Your task to perform on an android device: Open my contact list Image 0: 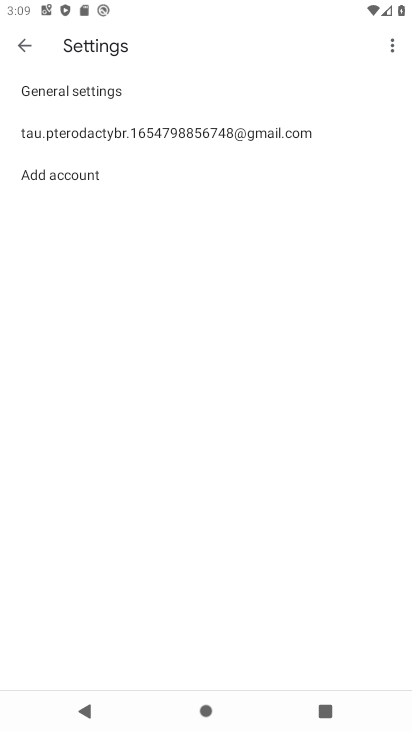
Step 0: press home button
Your task to perform on an android device: Open my contact list Image 1: 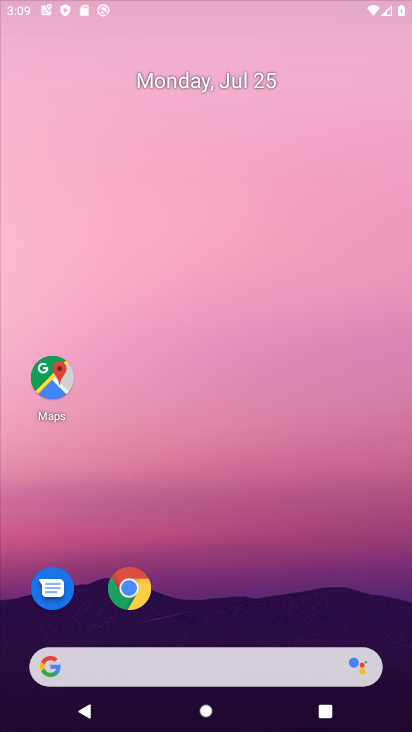
Step 1: drag from (342, 585) to (274, 51)
Your task to perform on an android device: Open my contact list Image 2: 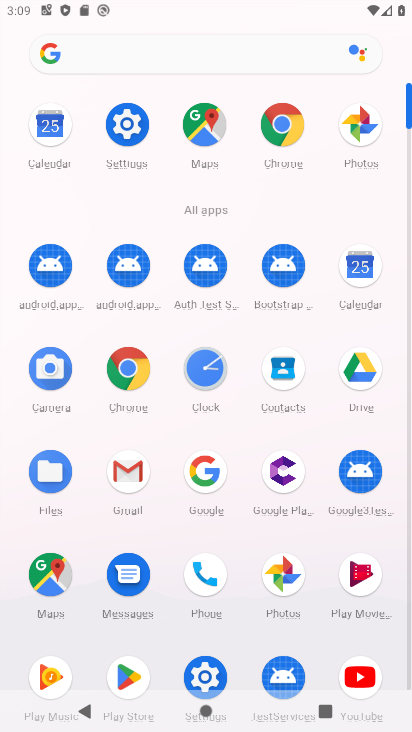
Step 2: click (283, 375)
Your task to perform on an android device: Open my contact list Image 3: 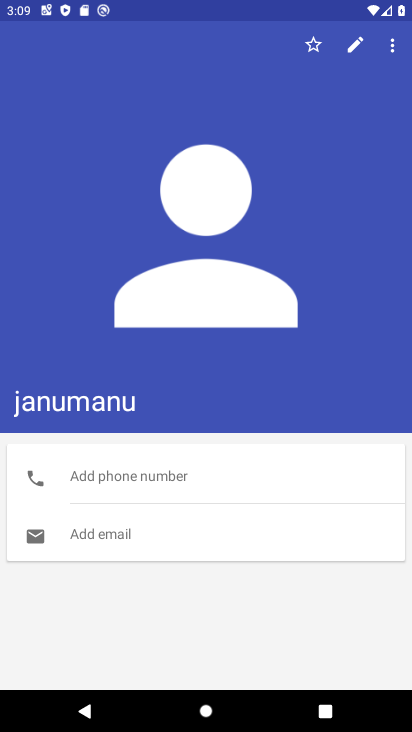
Step 3: task complete